Your task to perform on an android device: Find coffee shops on Maps Image 0: 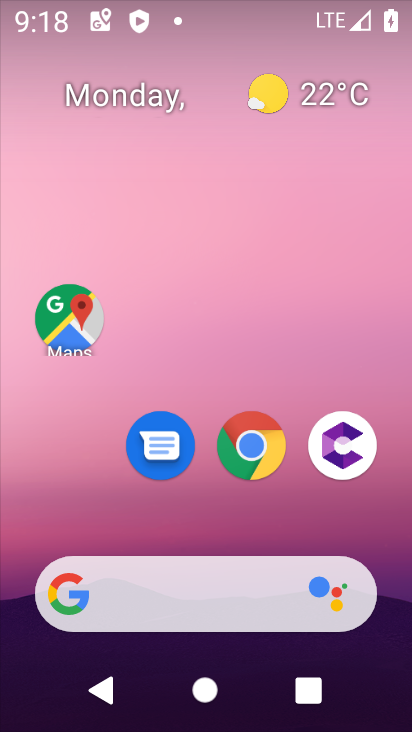
Step 0: press home button
Your task to perform on an android device: Find coffee shops on Maps Image 1: 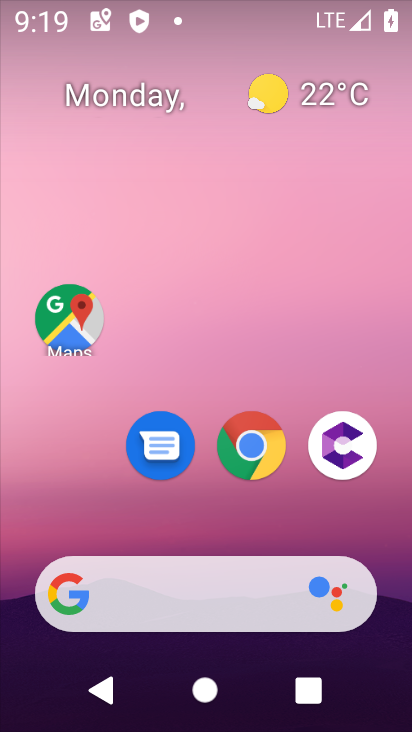
Step 1: click (69, 320)
Your task to perform on an android device: Find coffee shops on Maps Image 2: 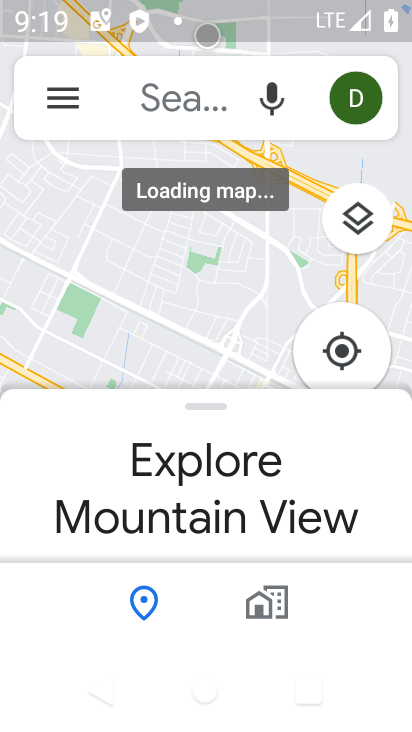
Step 2: click (195, 108)
Your task to perform on an android device: Find coffee shops on Maps Image 3: 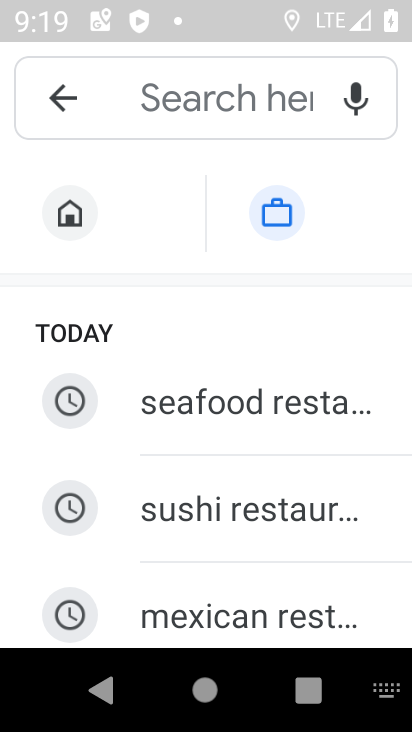
Step 3: type " coffee shops"
Your task to perform on an android device: Find coffee shops on Maps Image 4: 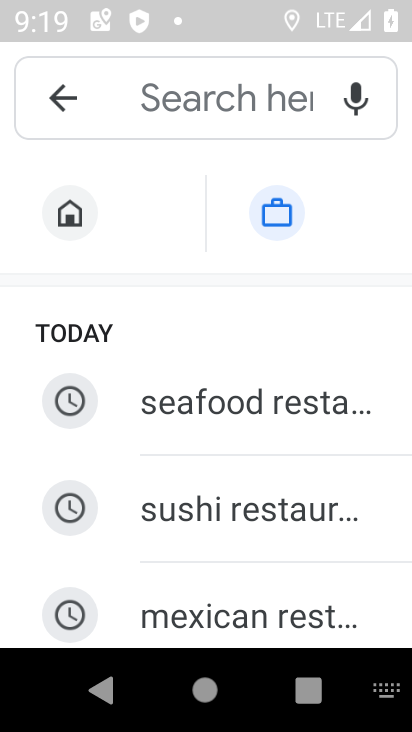
Step 4: click (206, 99)
Your task to perform on an android device: Find coffee shops on Maps Image 5: 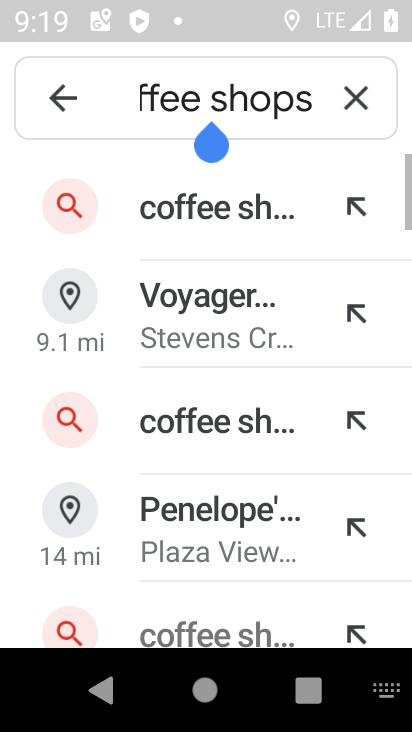
Step 5: click (187, 205)
Your task to perform on an android device: Find coffee shops on Maps Image 6: 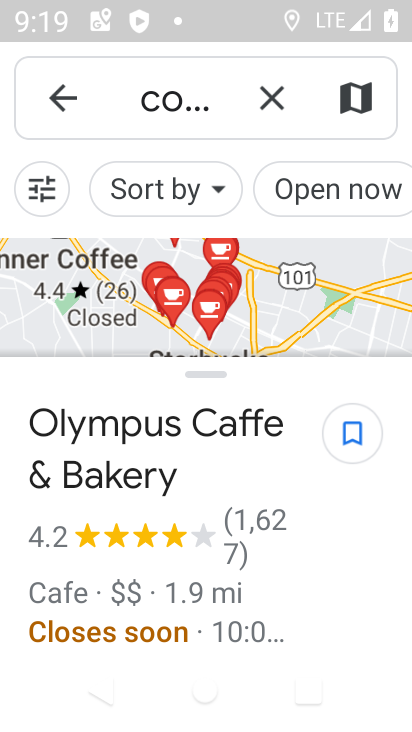
Step 6: task complete